Your task to perform on an android device: Open the web browser Image 0: 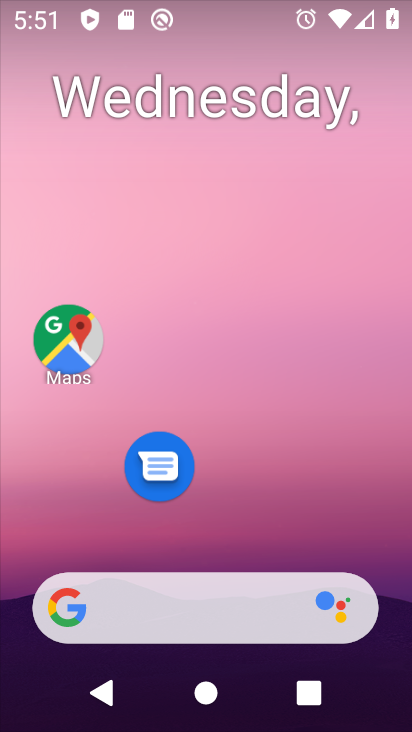
Step 0: drag from (317, 325) to (303, 132)
Your task to perform on an android device: Open the web browser Image 1: 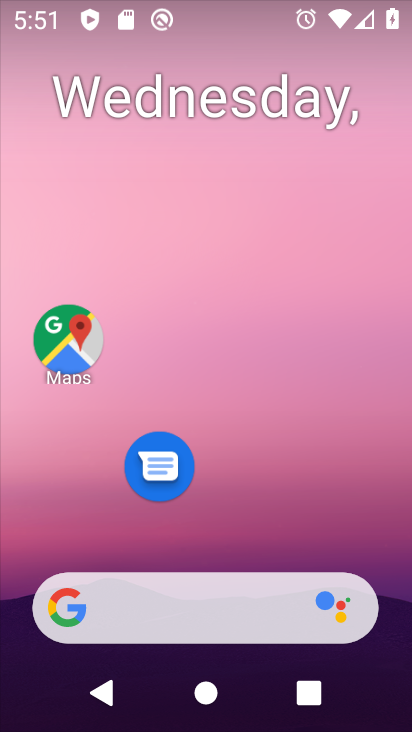
Step 1: drag from (274, 493) to (319, 5)
Your task to perform on an android device: Open the web browser Image 2: 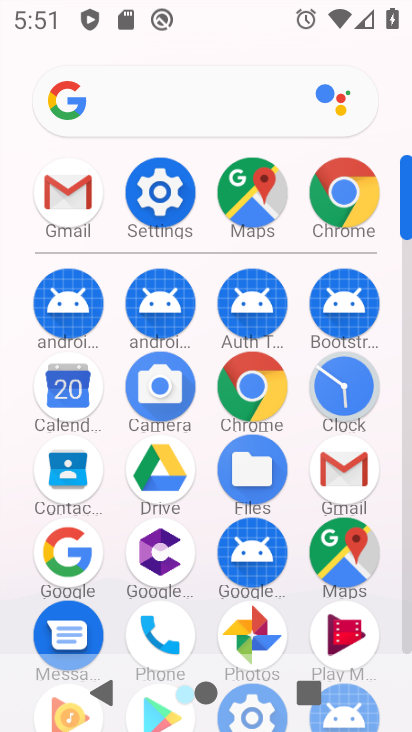
Step 2: click (324, 184)
Your task to perform on an android device: Open the web browser Image 3: 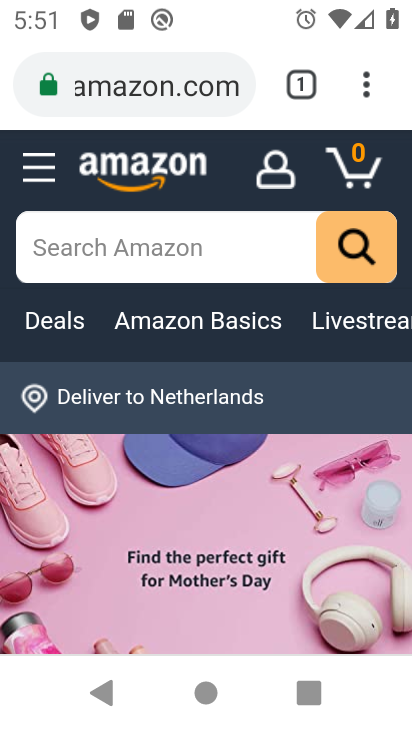
Step 3: drag from (364, 78) to (184, 192)
Your task to perform on an android device: Open the web browser Image 4: 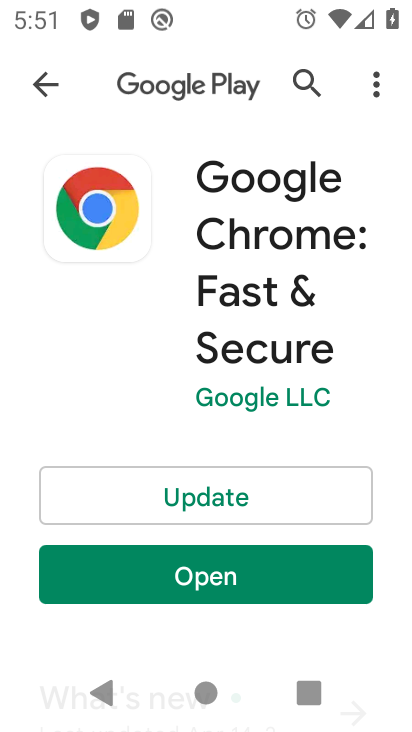
Step 4: click (353, 491)
Your task to perform on an android device: Open the web browser Image 5: 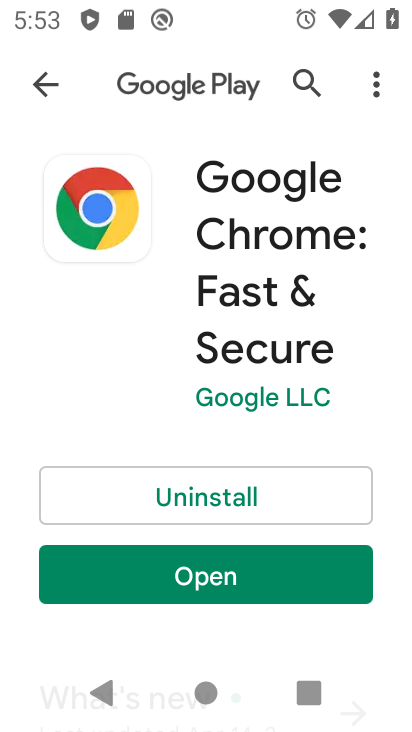
Step 5: click (244, 566)
Your task to perform on an android device: Open the web browser Image 6: 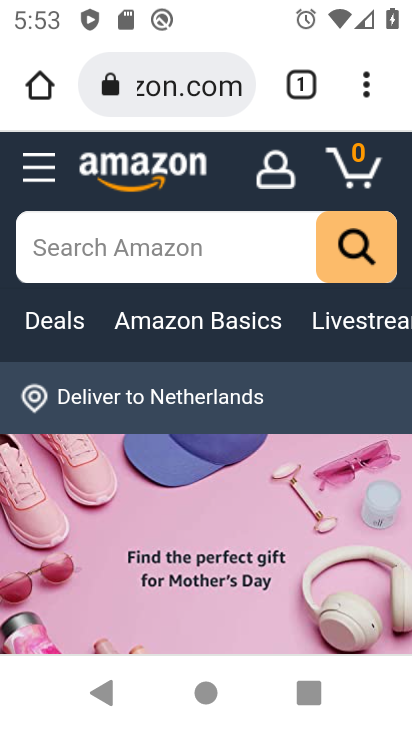
Step 6: click (373, 89)
Your task to perform on an android device: Open the web browser Image 7: 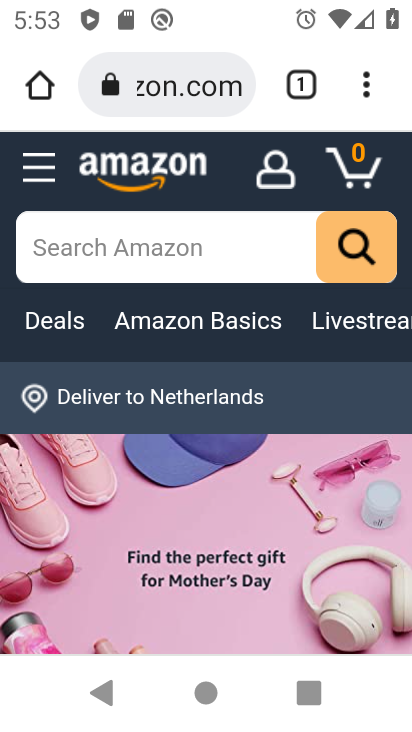
Step 7: click (186, 73)
Your task to perform on an android device: Open the web browser Image 8: 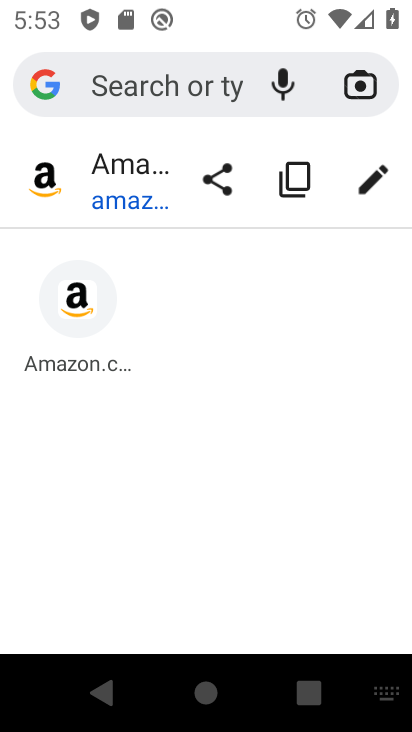
Step 8: type " web browser"
Your task to perform on an android device: Open the web browser Image 9: 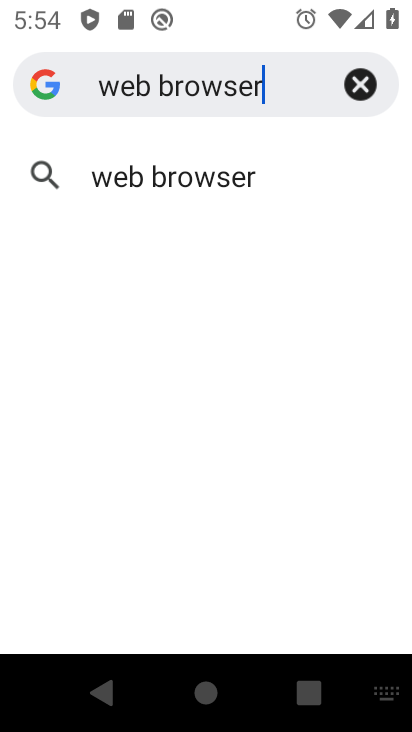
Step 9: click (189, 186)
Your task to perform on an android device: Open the web browser Image 10: 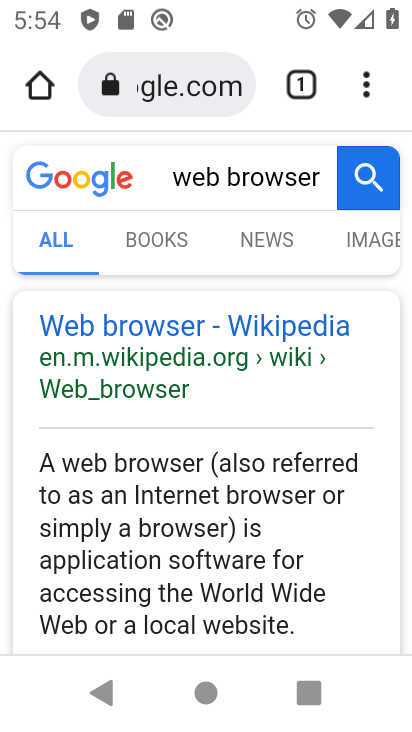
Step 10: click (169, 322)
Your task to perform on an android device: Open the web browser Image 11: 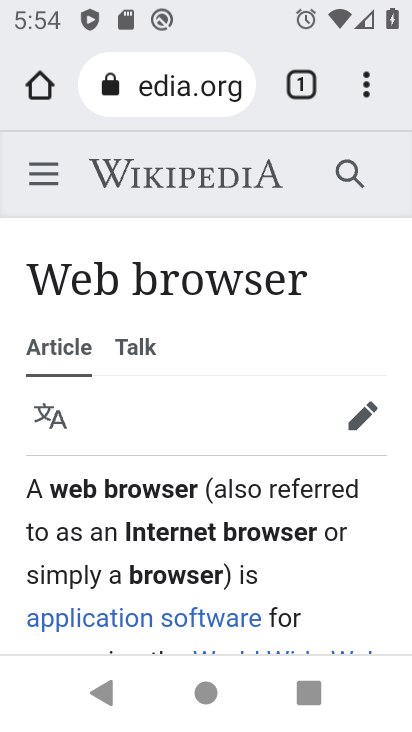
Step 11: task complete